Your task to perform on an android device: Clear all items from cart on costco.com. Add "lg ultragear" to the cart on costco.com Image 0: 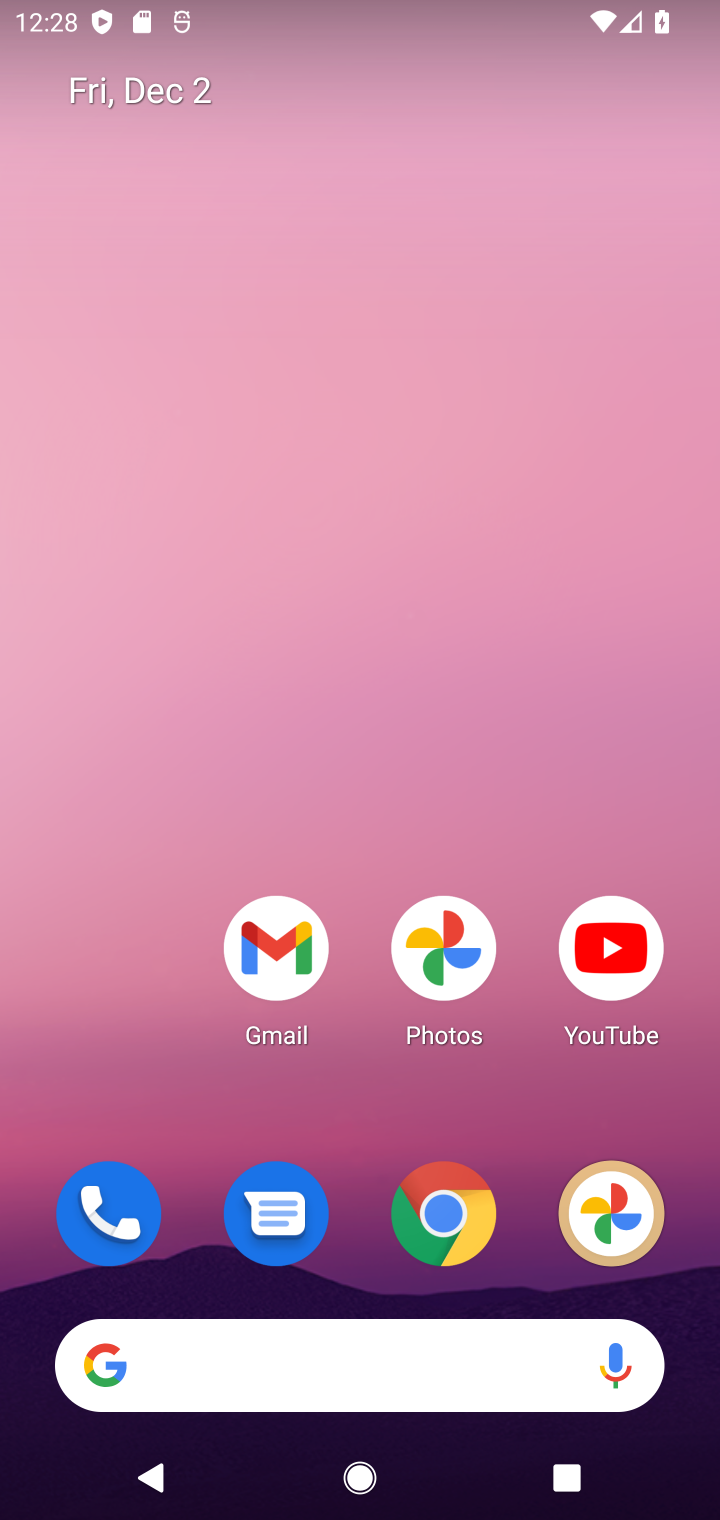
Step 0: drag from (366, 1286) to (361, 278)
Your task to perform on an android device: Clear all items from cart on costco.com. Add "lg ultragear" to the cart on costco.com Image 1: 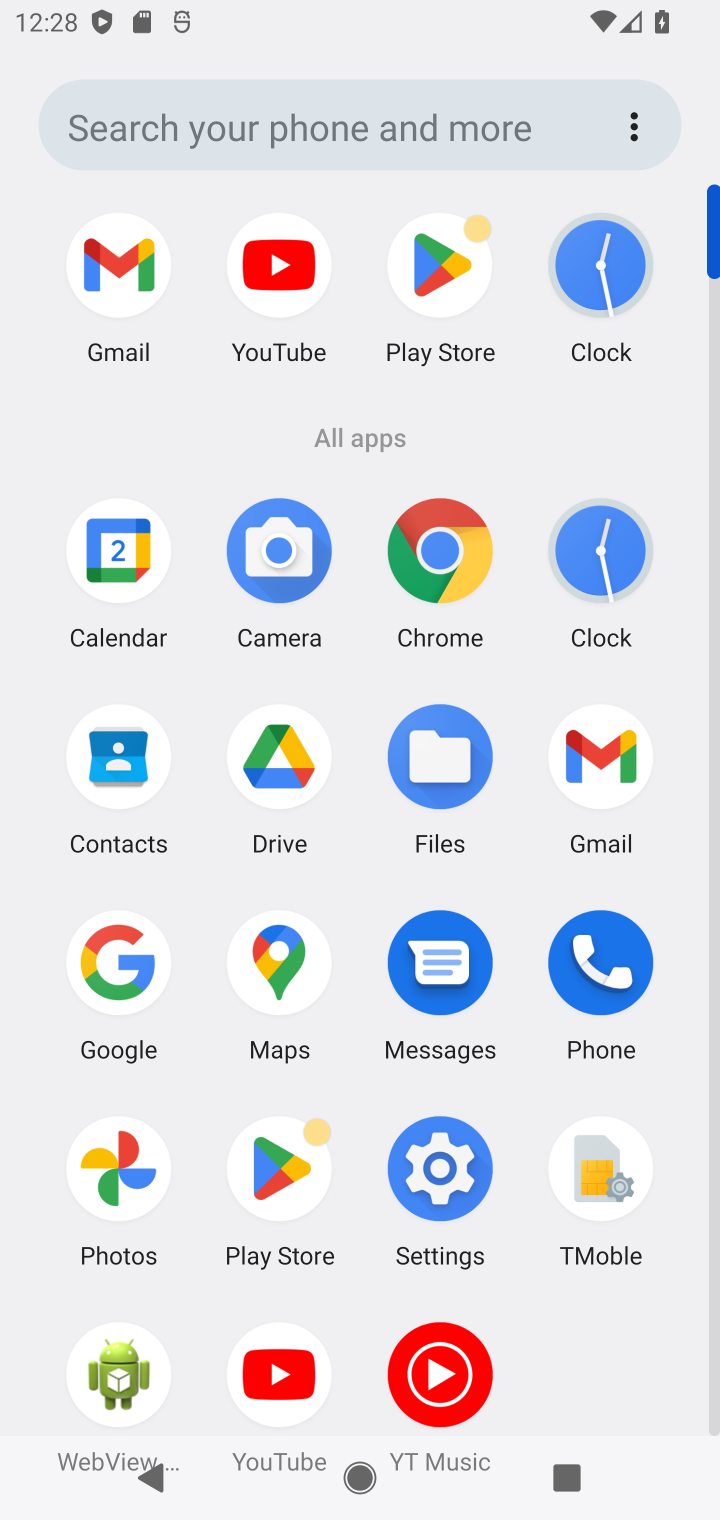
Step 1: click (108, 964)
Your task to perform on an android device: Clear all items from cart on costco.com. Add "lg ultragear" to the cart on costco.com Image 2: 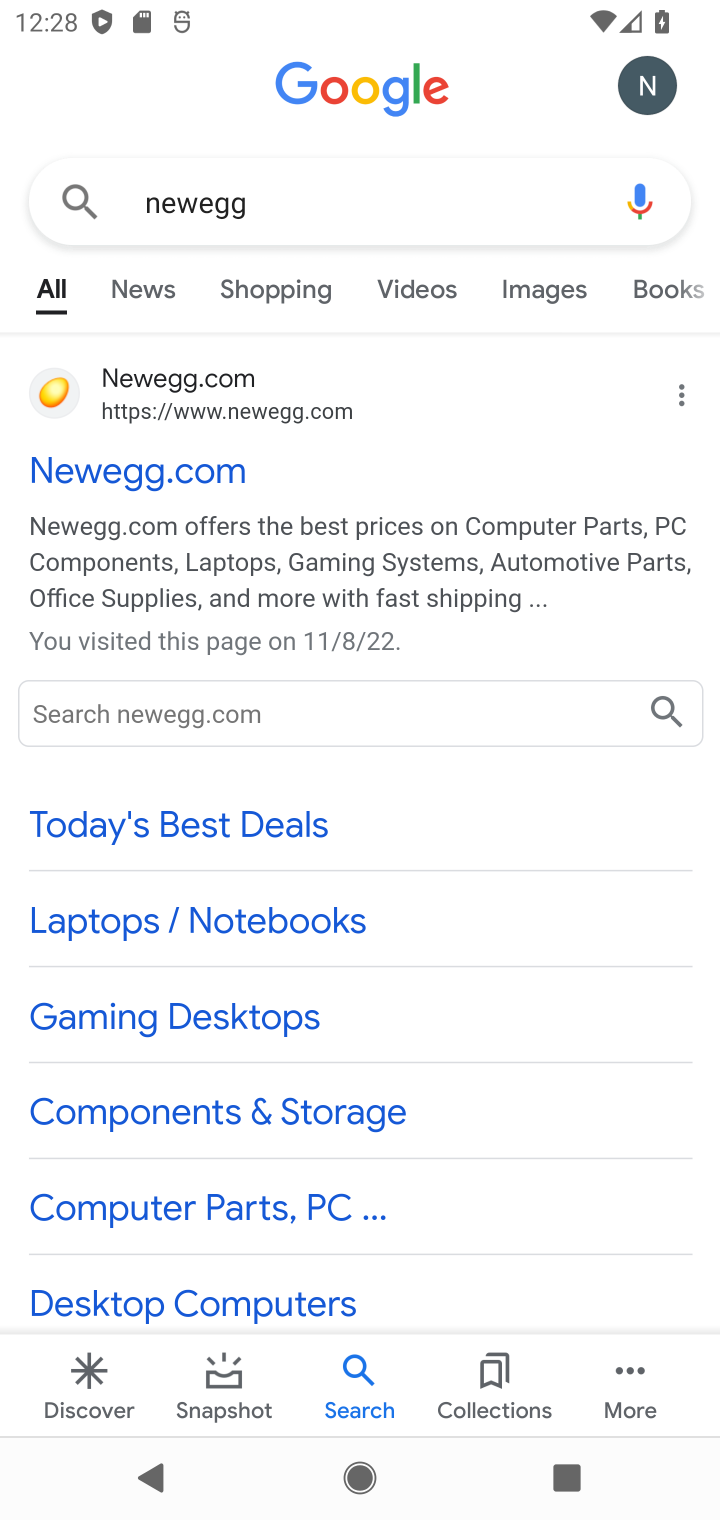
Step 2: click (186, 189)
Your task to perform on an android device: Clear all items from cart on costco.com. Add "lg ultragear" to the cart on costco.com Image 3: 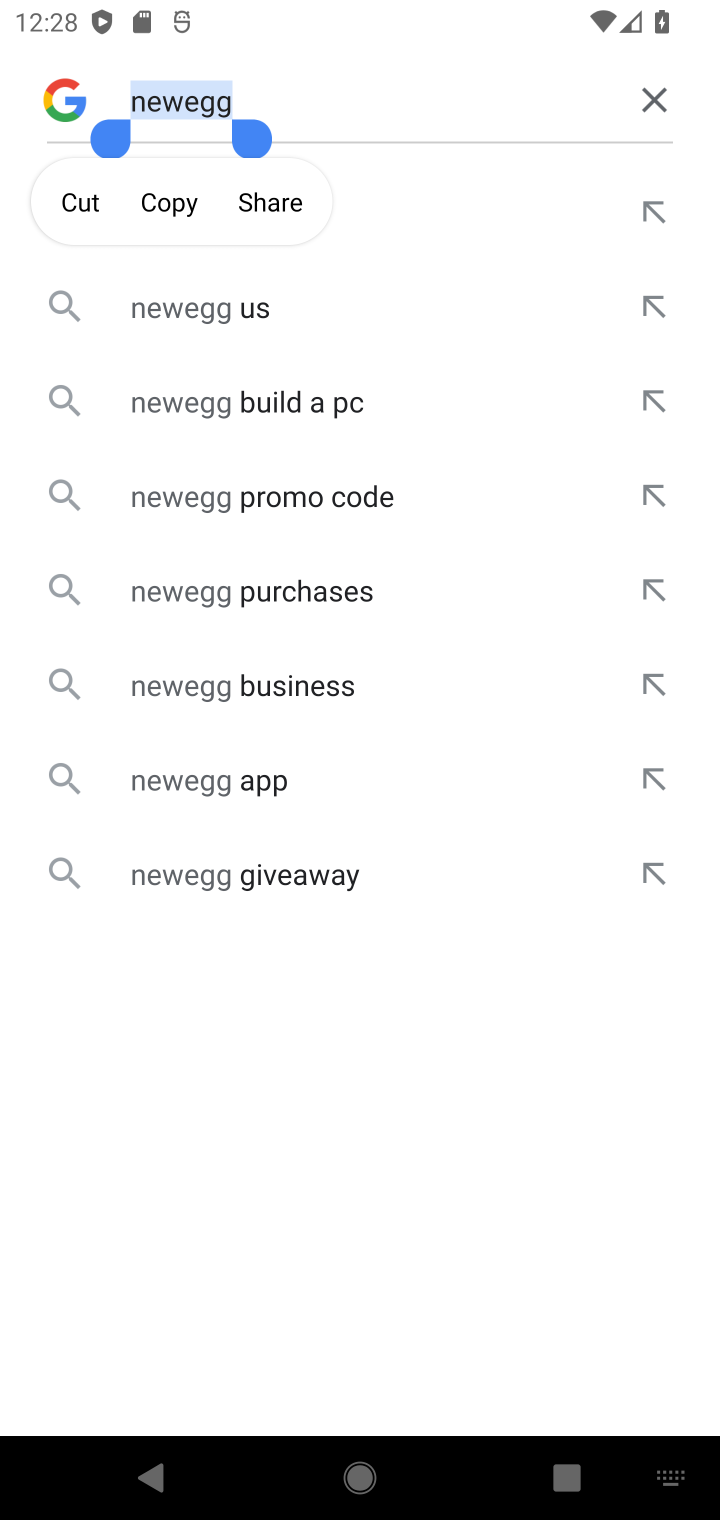
Step 3: click (658, 104)
Your task to perform on an android device: Clear all items from cart on costco.com. Add "lg ultragear" to the cart on costco.com Image 4: 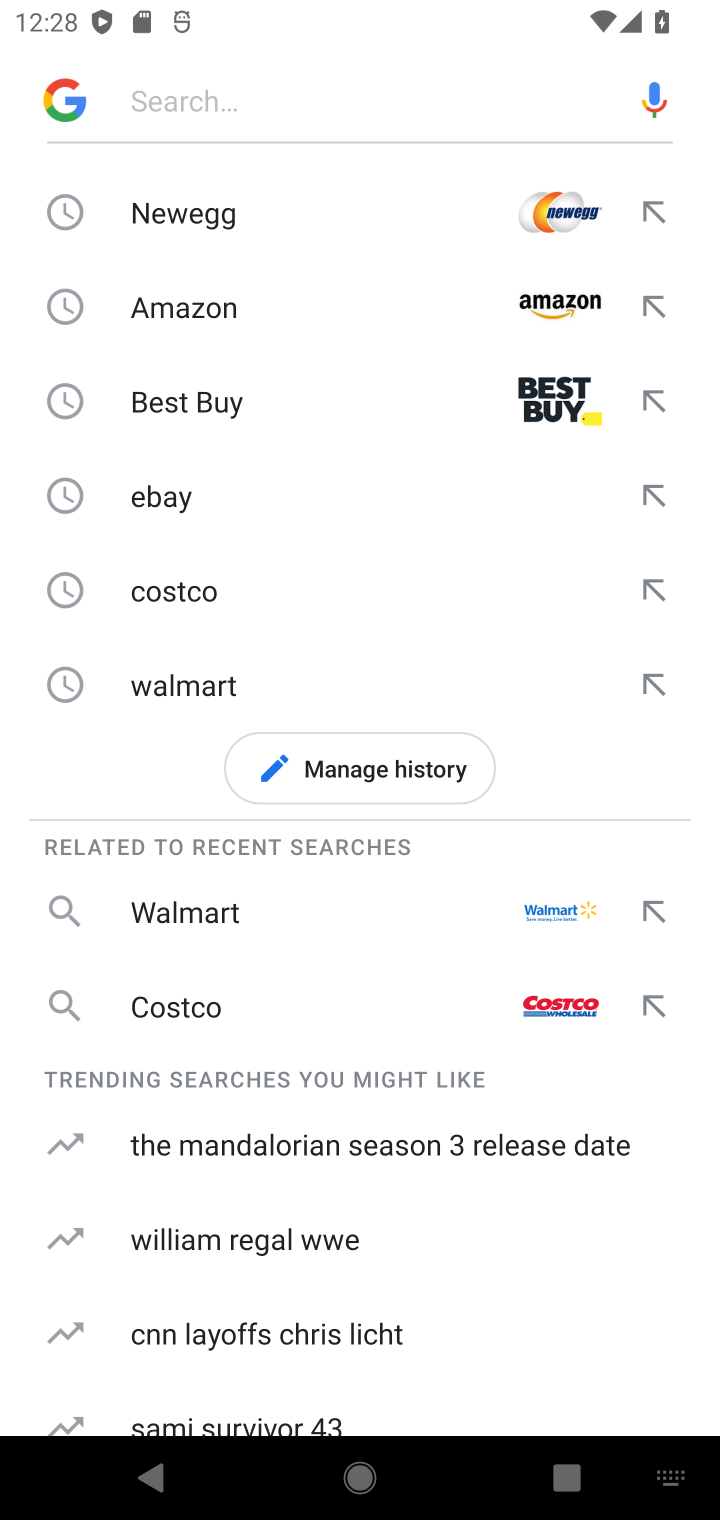
Step 4: click (175, 595)
Your task to perform on an android device: Clear all items from cart on costco.com. Add "lg ultragear" to the cart on costco.com Image 5: 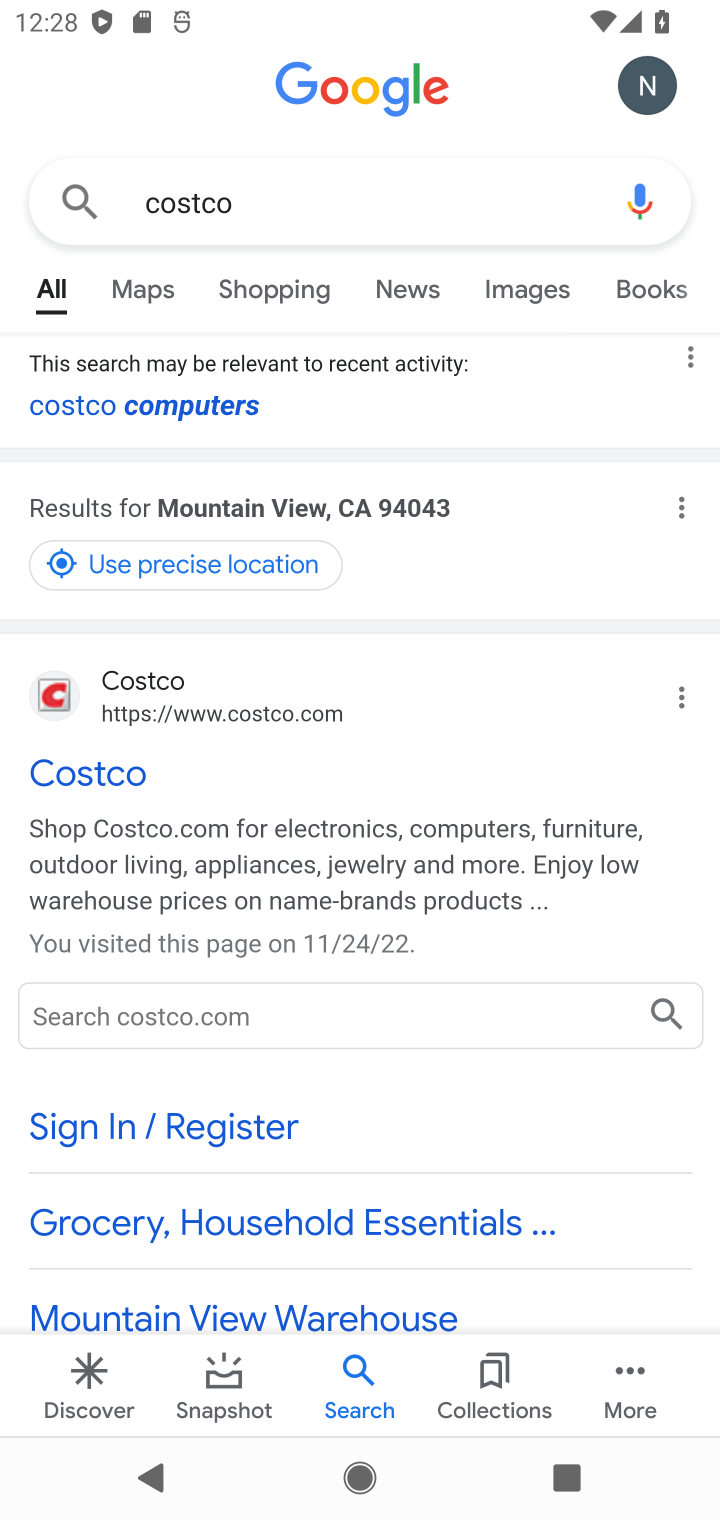
Step 5: click (72, 773)
Your task to perform on an android device: Clear all items from cart on costco.com. Add "lg ultragear" to the cart on costco.com Image 6: 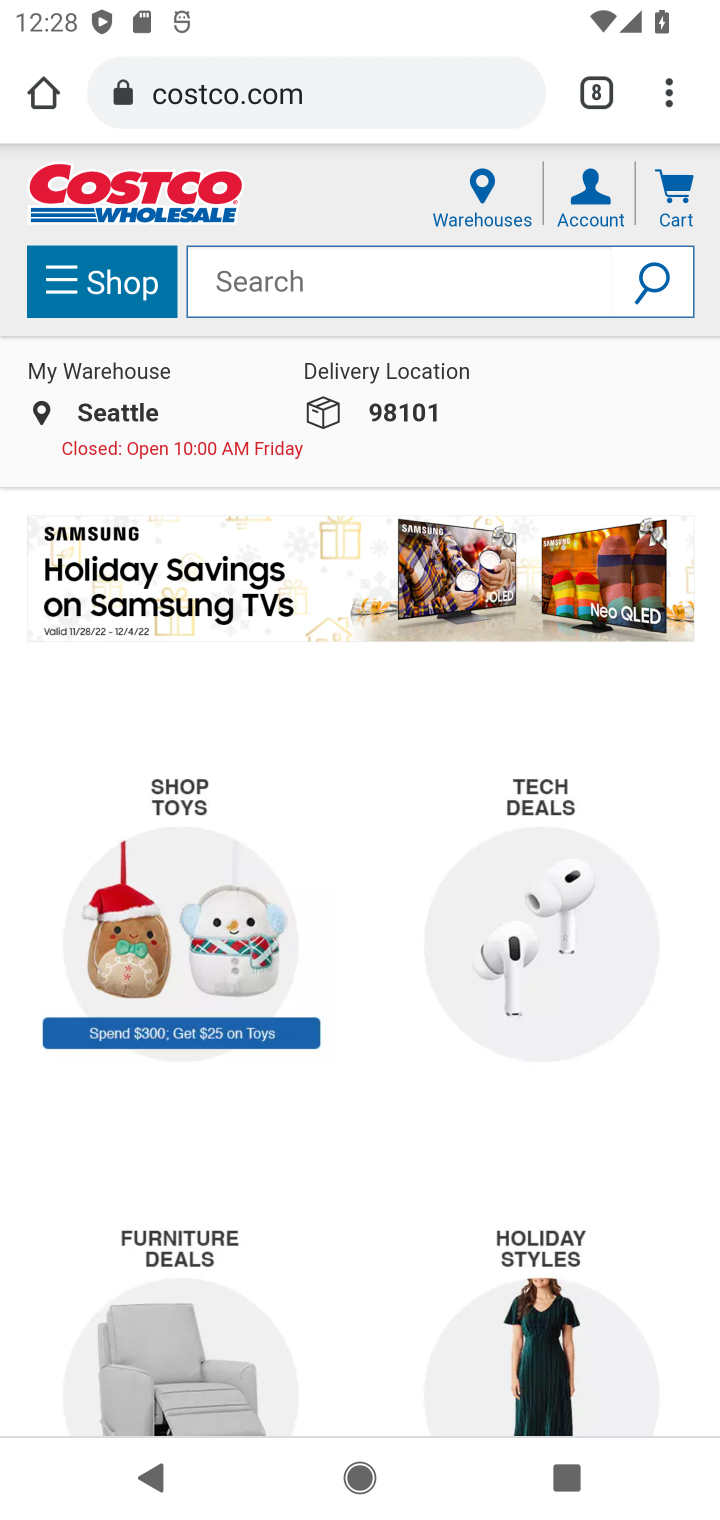
Step 6: click (301, 271)
Your task to perform on an android device: Clear all items from cart on costco.com. Add "lg ultragear" to the cart on costco.com Image 7: 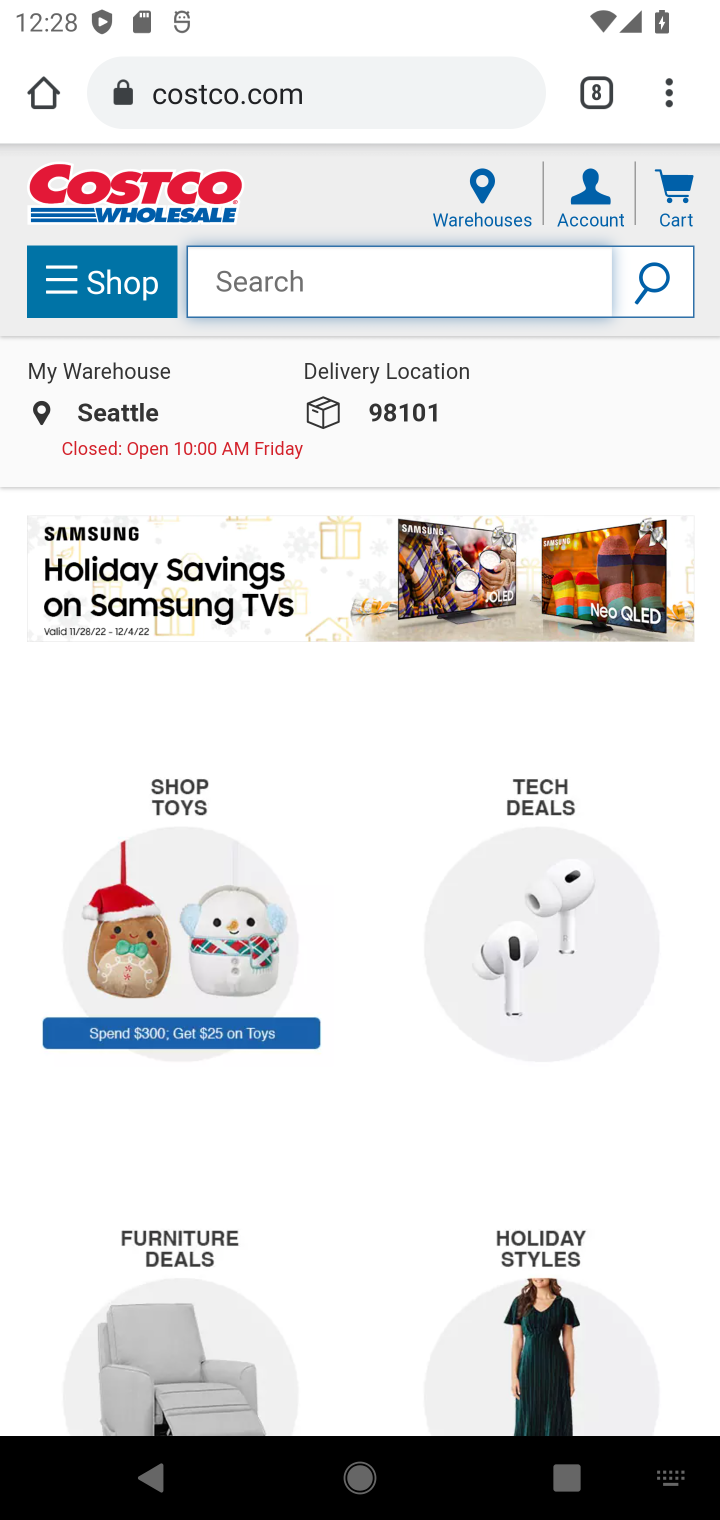
Step 7: type "lg ultragear"
Your task to perform on an android device: Clear all items from cart on costco.com. Add "lg ultragear" to the cart on costco.com Image 8: 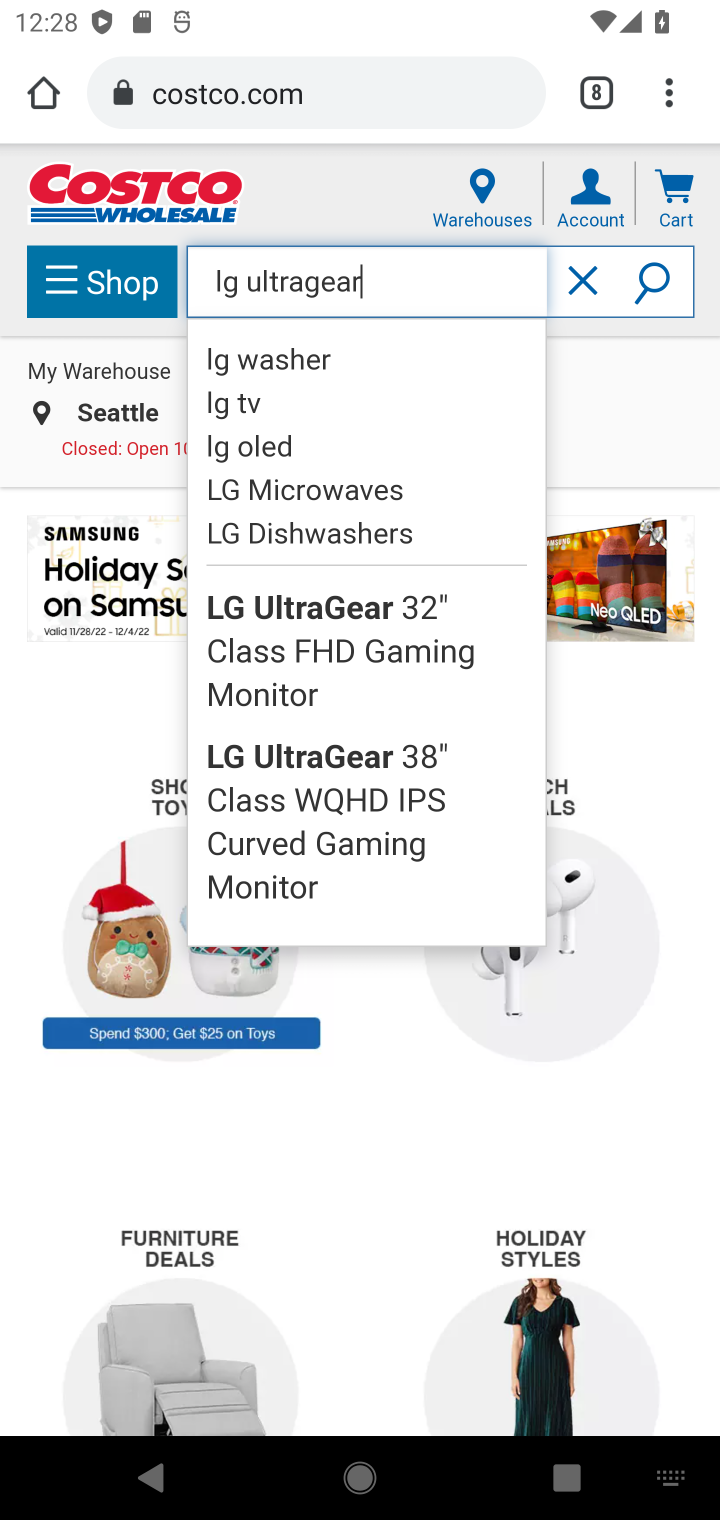
Step 8: click (643, 260)
Your task to perform on an android device: Clear all items from cart on costco.com. Add "lg ultragear" to the cart on costco.com Image 9: 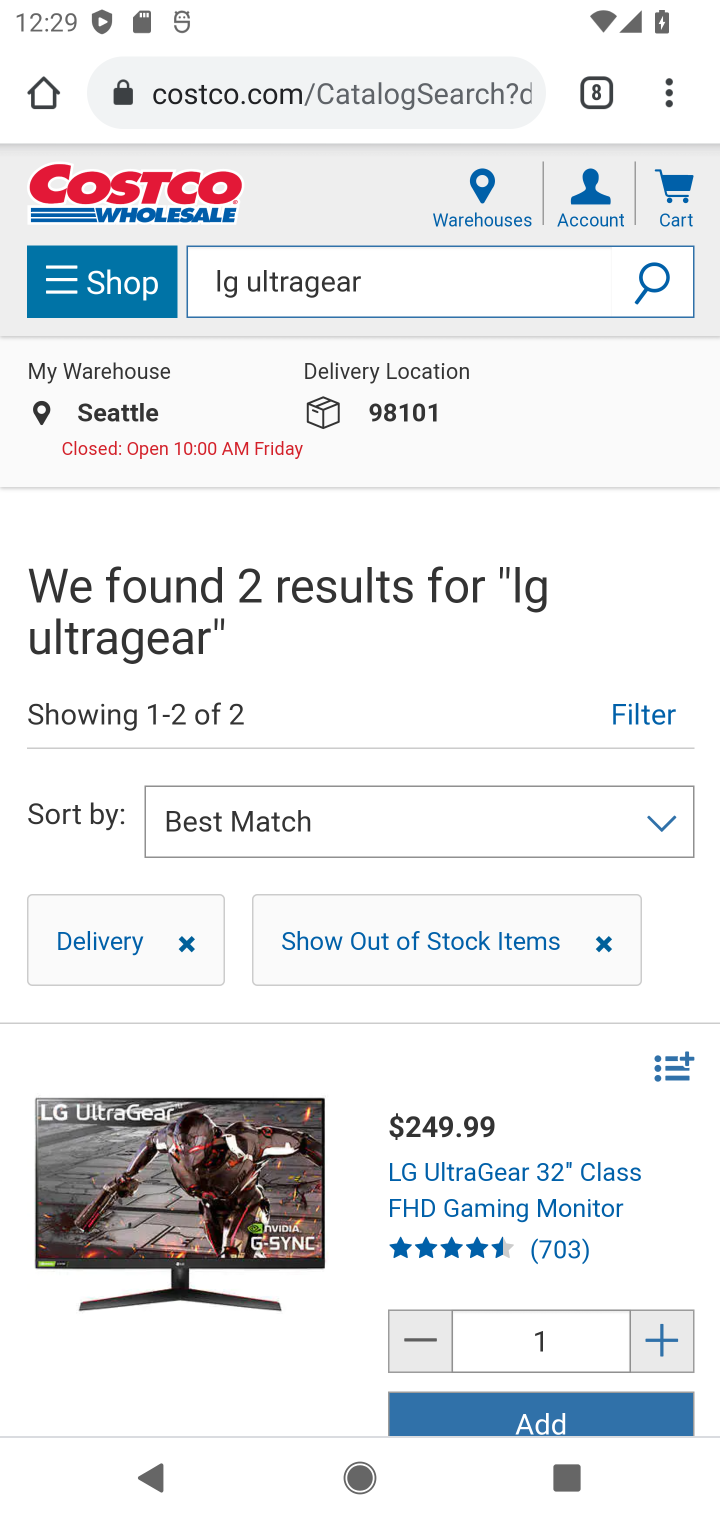
Step 9: click (540, 1416)
Your task to perform on an android device: Clear all items from cart on costco.com. Add "lg ultragear" to the cart on costco.com Image 10: 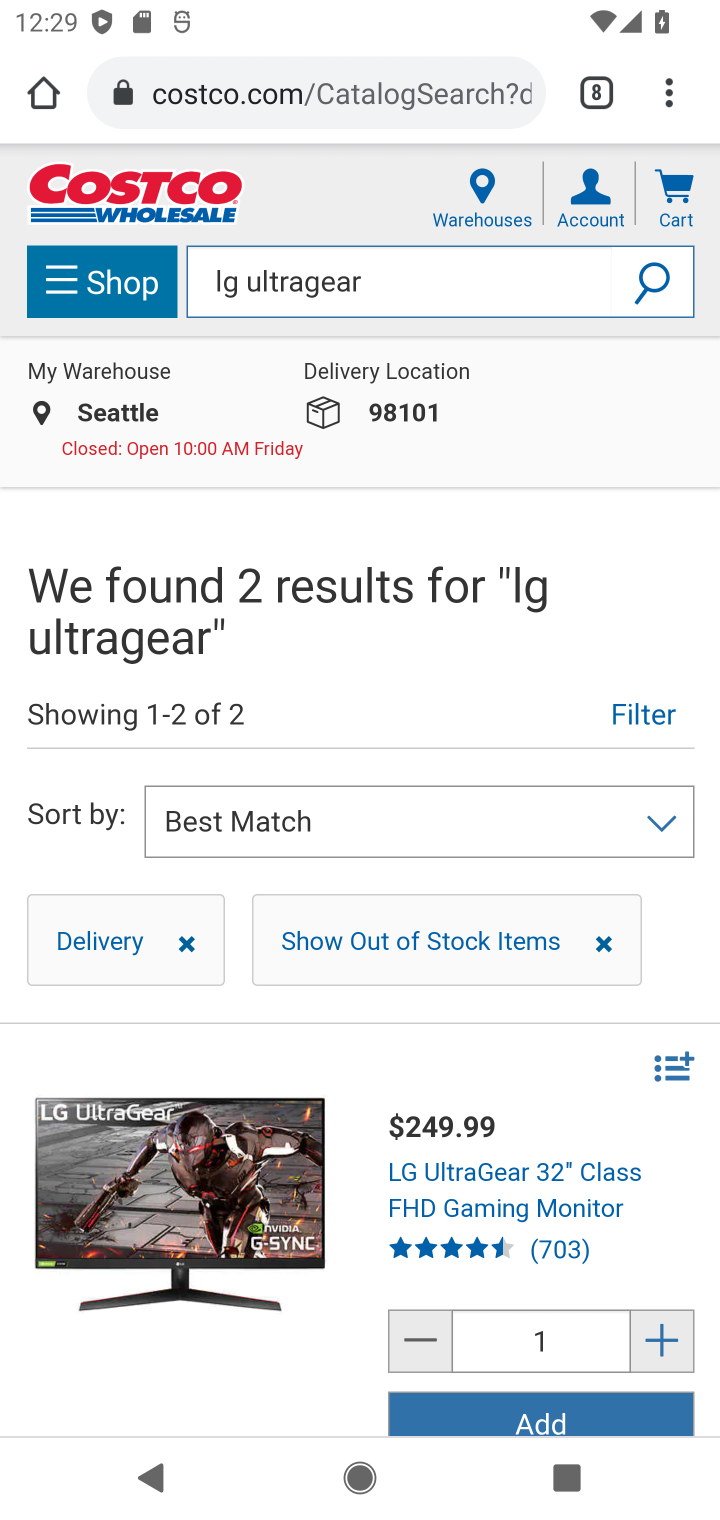
Step 10: click (540, 1419)
Your task to perform on an android device: Clear all items from cart on costco.com. Add "lg ultragear" to the cart on costco.com Image 11: 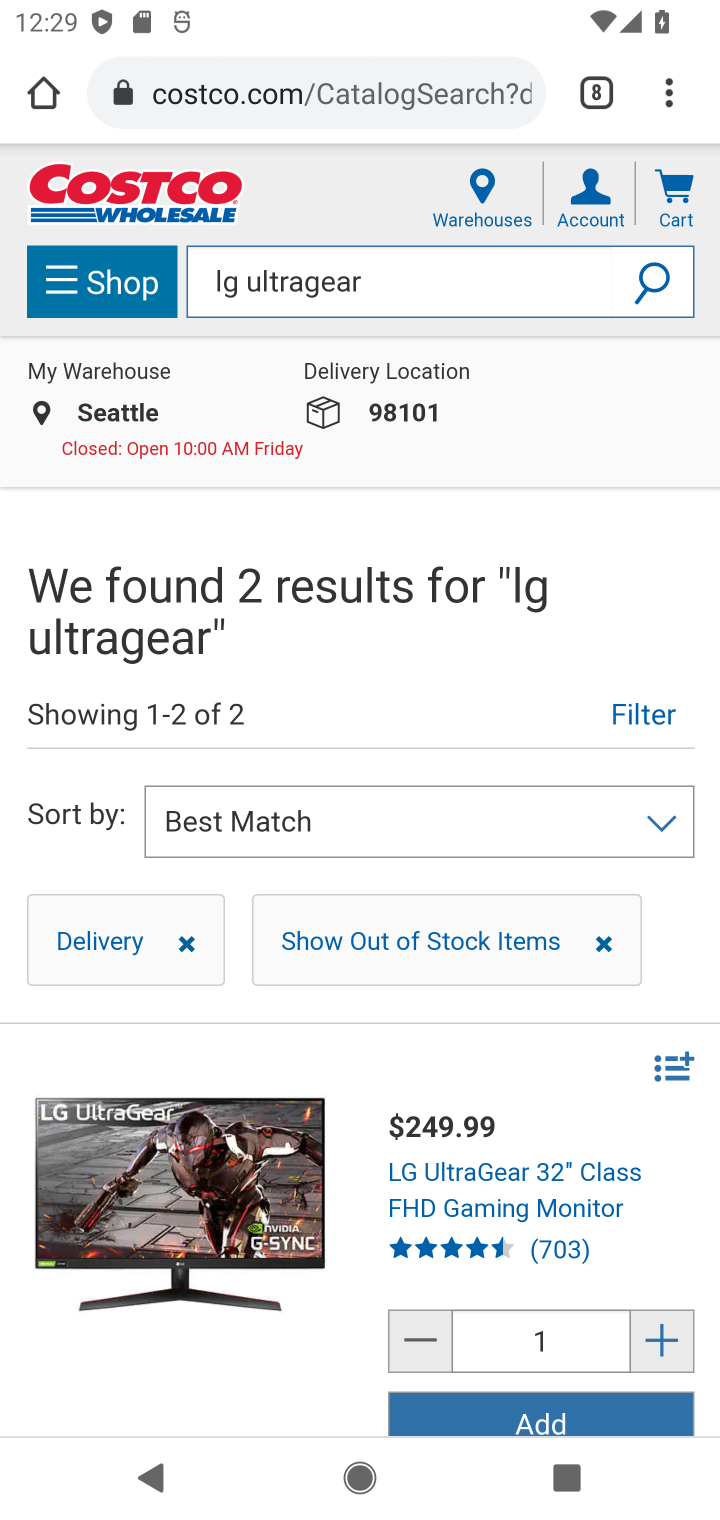
Step 11: task complete